Your task to perform on an android device: Check the news Image 0: 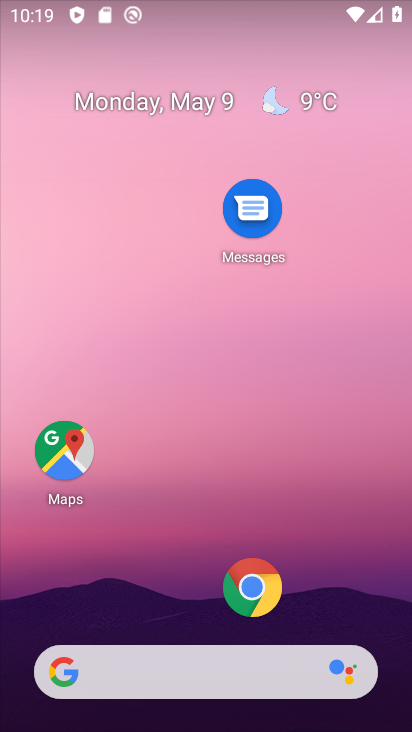
Step 0: drag from (208, 606) to (289, 214)
Your task to perform on an android device: Check the news Image 1: 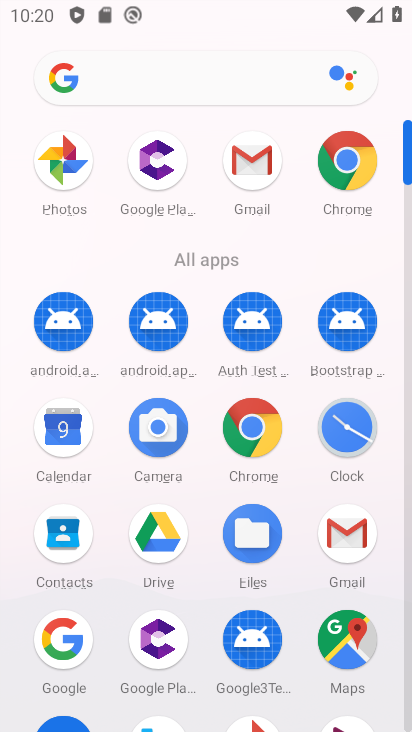
Step 1: drag from (265, 328) to (290, 207)
Your task to perform on an android device: Check the news Image 2: 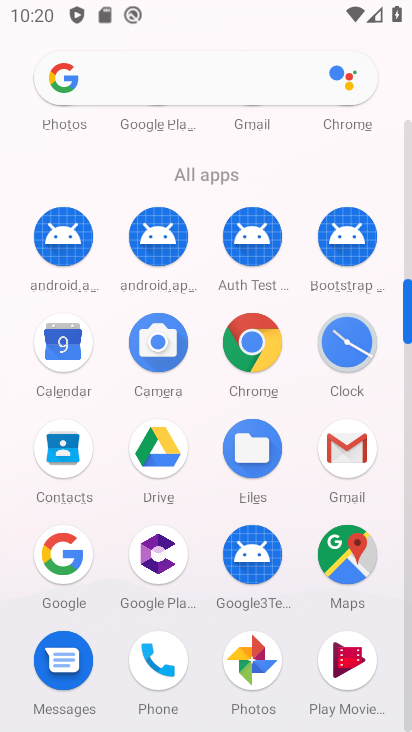
Step 2: drag from (205, 508) to (202, 283)
Your task to perform on an android device: Check the news Image 3: 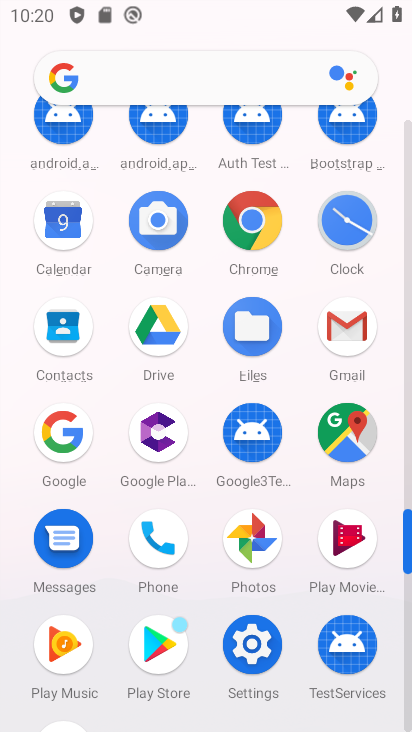
Step 3: click (158, 78)
Your task to perform on an android device: Check the news Image 4: 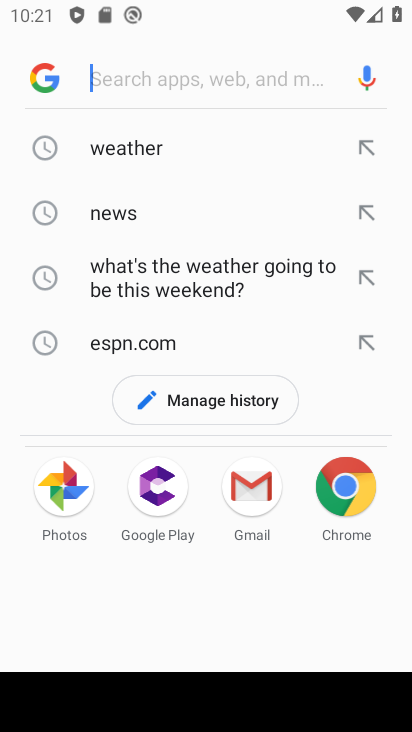
Step 4: click (128, 199)
Your task to perform on an android device: Check the news Image 5: 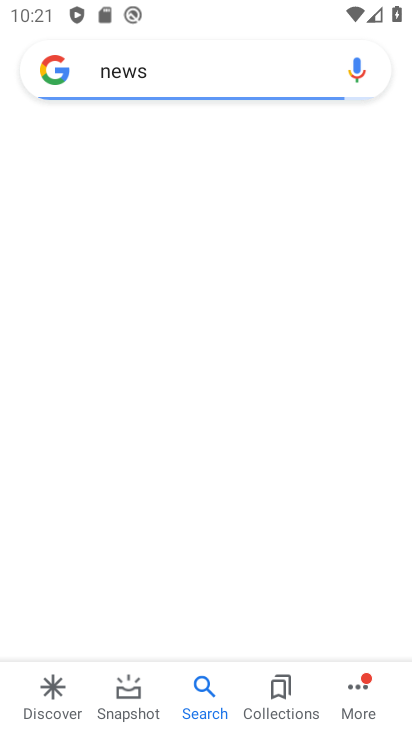
Step 5: drag from (225, 484) to (292, 207)
Your task to perform on an android device: Check the news Image 6: 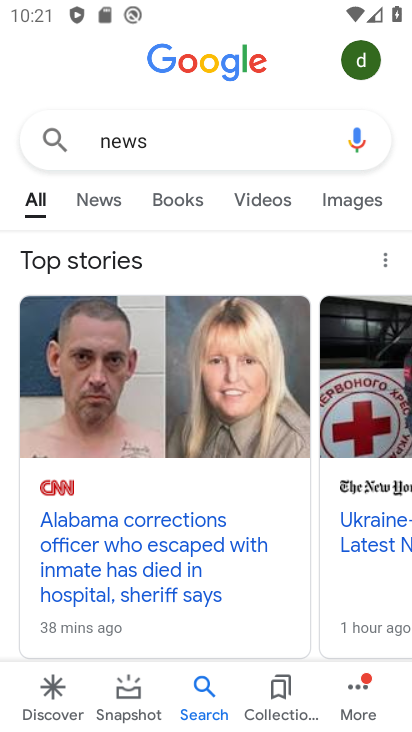
Step 6: drag from (191, 556) to (246, 1)
Your task to perform on an android device: Check the news Image 7: 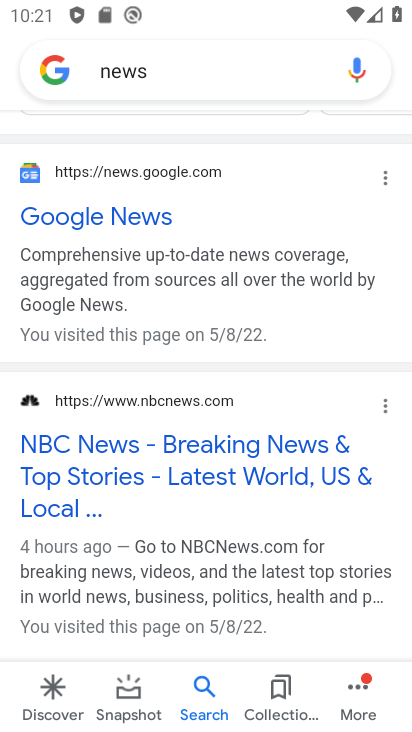
Step 7: click (126, 447)
Your task to perform on an android device: Check the news Image 8: 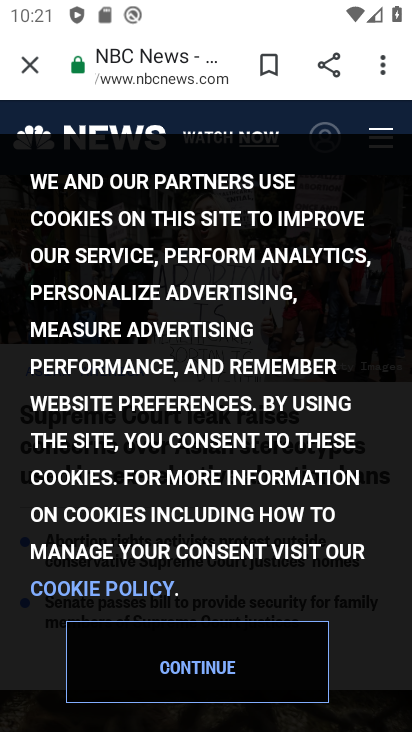
Step 8: task complete